Your task to perform on an android device: empty trash in google photos Image 0: 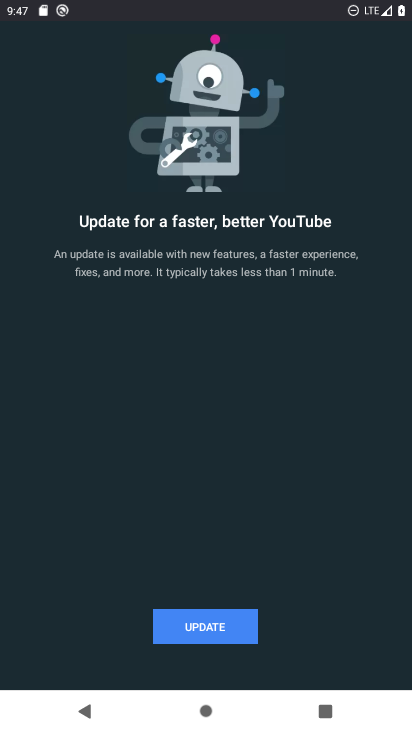
Step 0: press back button
Your task to perform on an android device: empty trash in google photos Image 1: 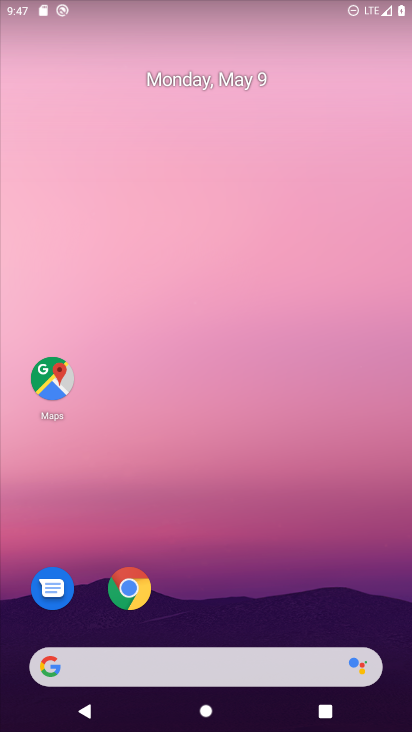
Step 1: drag from (286, 587) to (272, 156)
Your task to perform on an android device: empty trash in google photos Image 2: 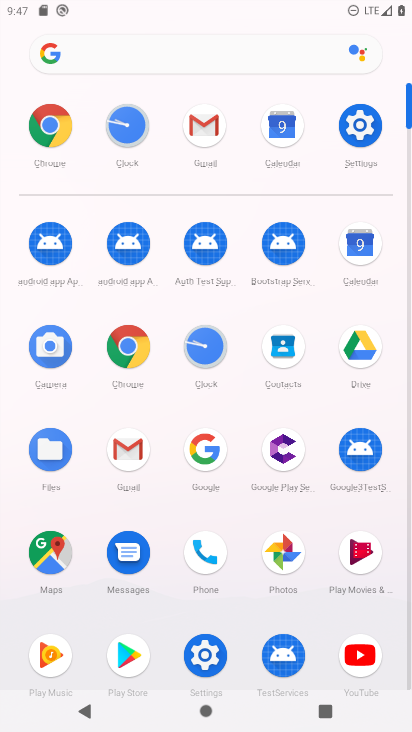
Step 2: click (275, 558)
Your task to perform on an android device: empty trash in google photos Image 3: 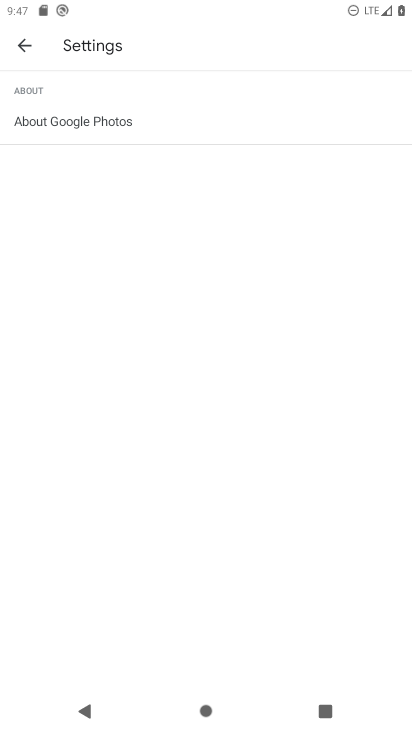
Step 3: task complete